Your task to perform on an android device: star an email in the gmail app Image 0: 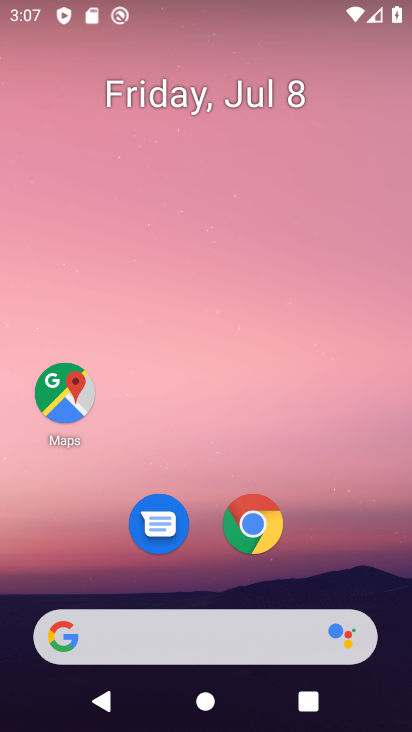
Step 0: drag from (318, 501) to (288, 30)
Your task to perform on an android device: star an email in the gmail app Image 1: 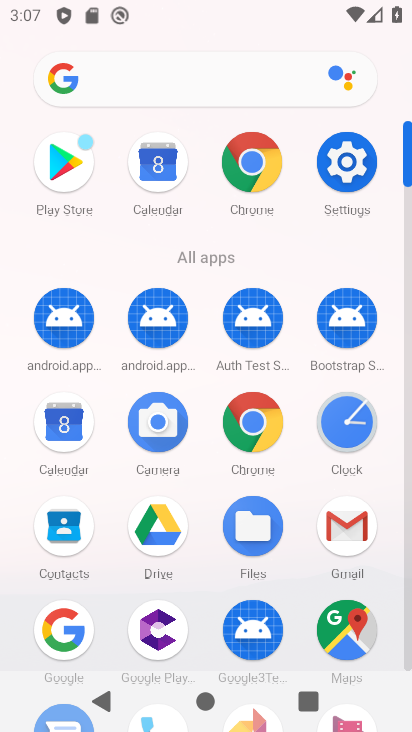
Step 1: click (362, 535)
Your task to perform on an android device: star an email in the gmail app Image 2: 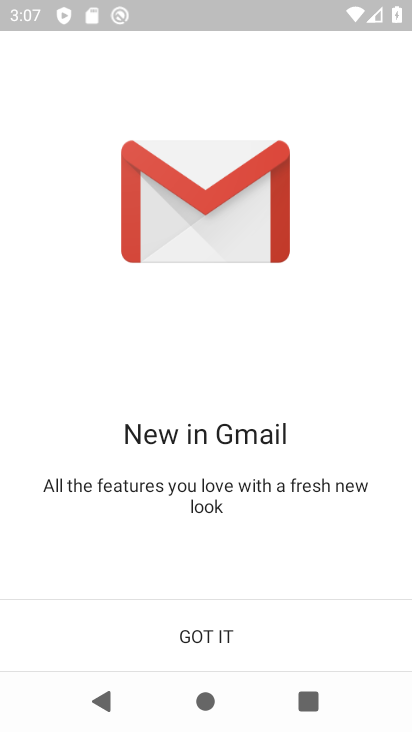
Step 2: click (245, 645)
Your task to perform on an android device: star an email in the gmail app Image 3: 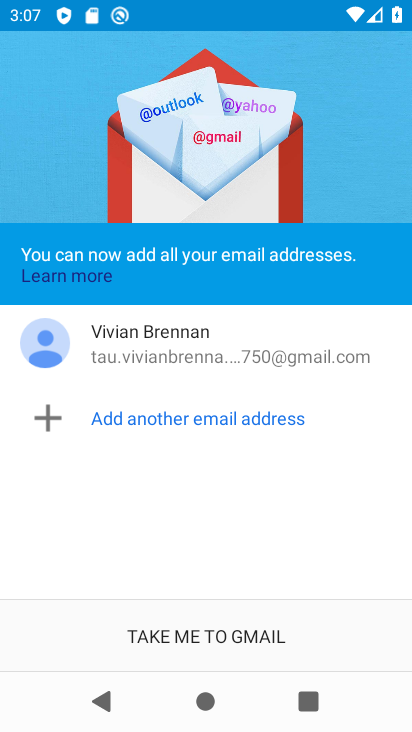
Step 3: click (250, 635)
Your task to perform on an android device: star an email in the gmail app Image 4: 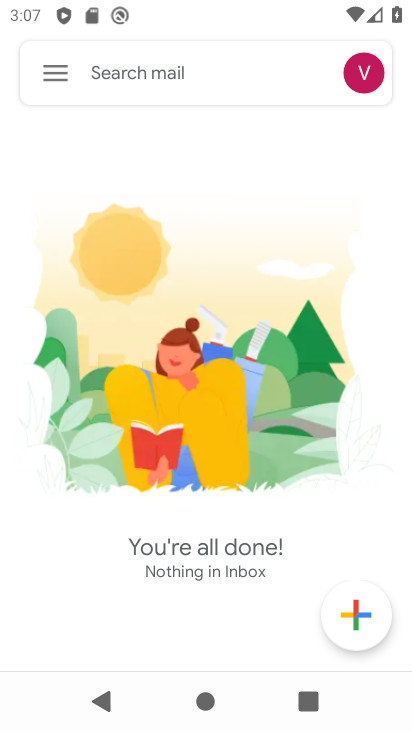
Step 4: click (56, 73)
Your task to perform on an android device: star an email in the gmail app Image 5: 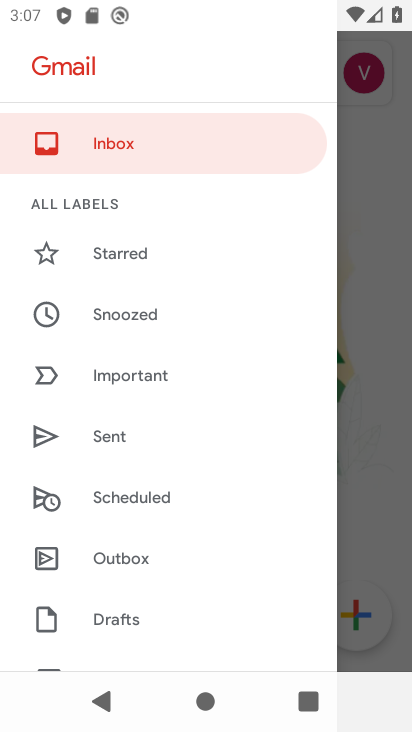
Step 5: drag from (182, 559) to (179, 258)
Your task to perform on an android device: star an email in the gmail app Image 6: 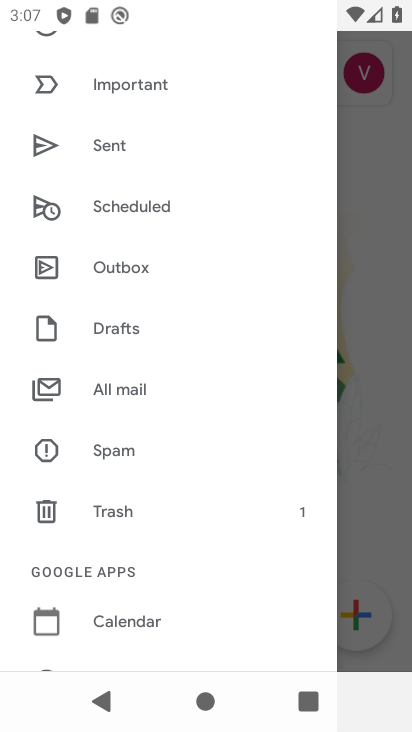
Step 6: click (139, 382)
Your task to perform on an android device: star an email in the gmail app Image 7: 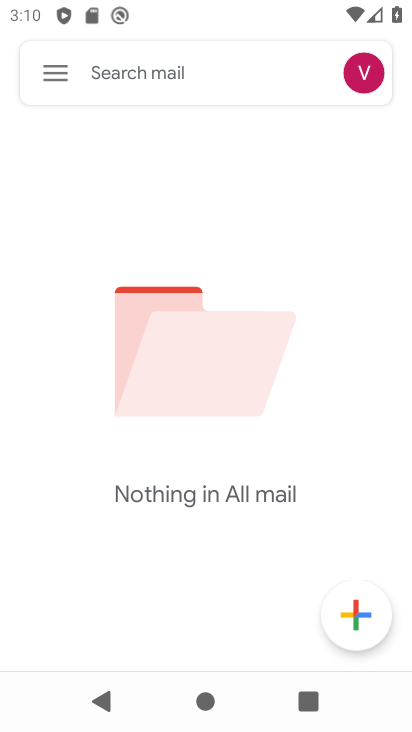
Step 7: task complete